Your task to perform on an android device: install app "Walmart Shopping & Grocery" Image 0: 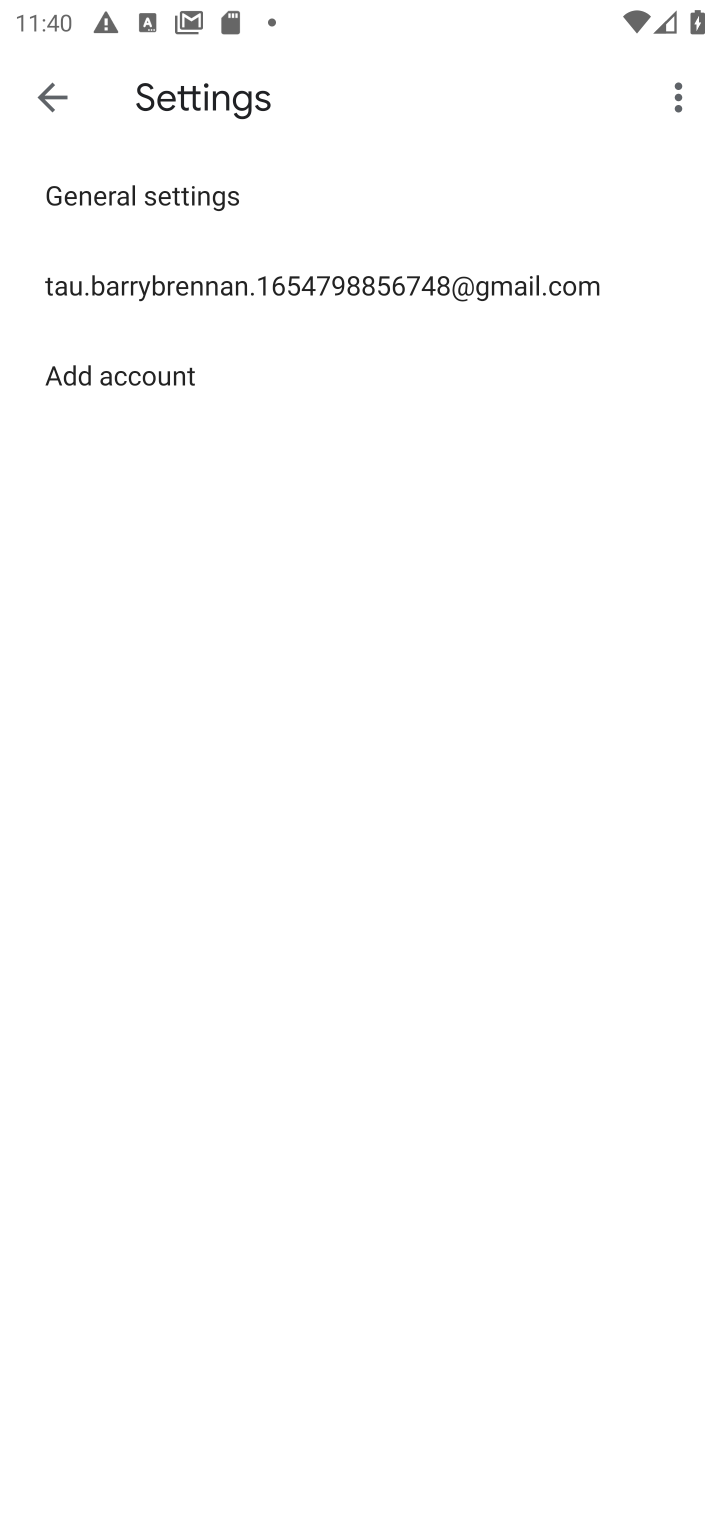
Step 0: press home button
Your task to perform on an android device: install app "Walmart Shopping & Grocery" Image 1: 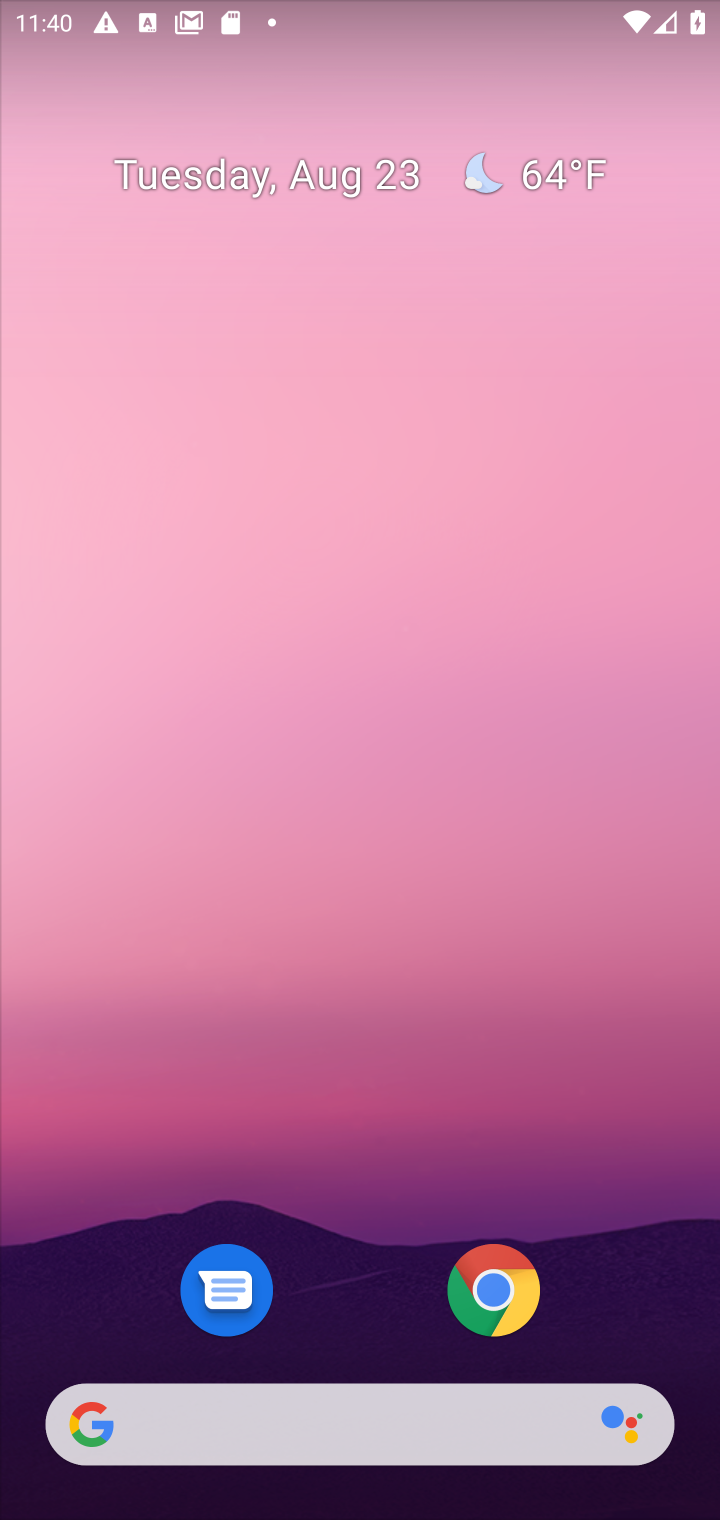
Step 1: drag from (340, 1249) to (290, 65)
Your task to perform on an android device: install app "Walmart Shopping & Grocery" Image 2: 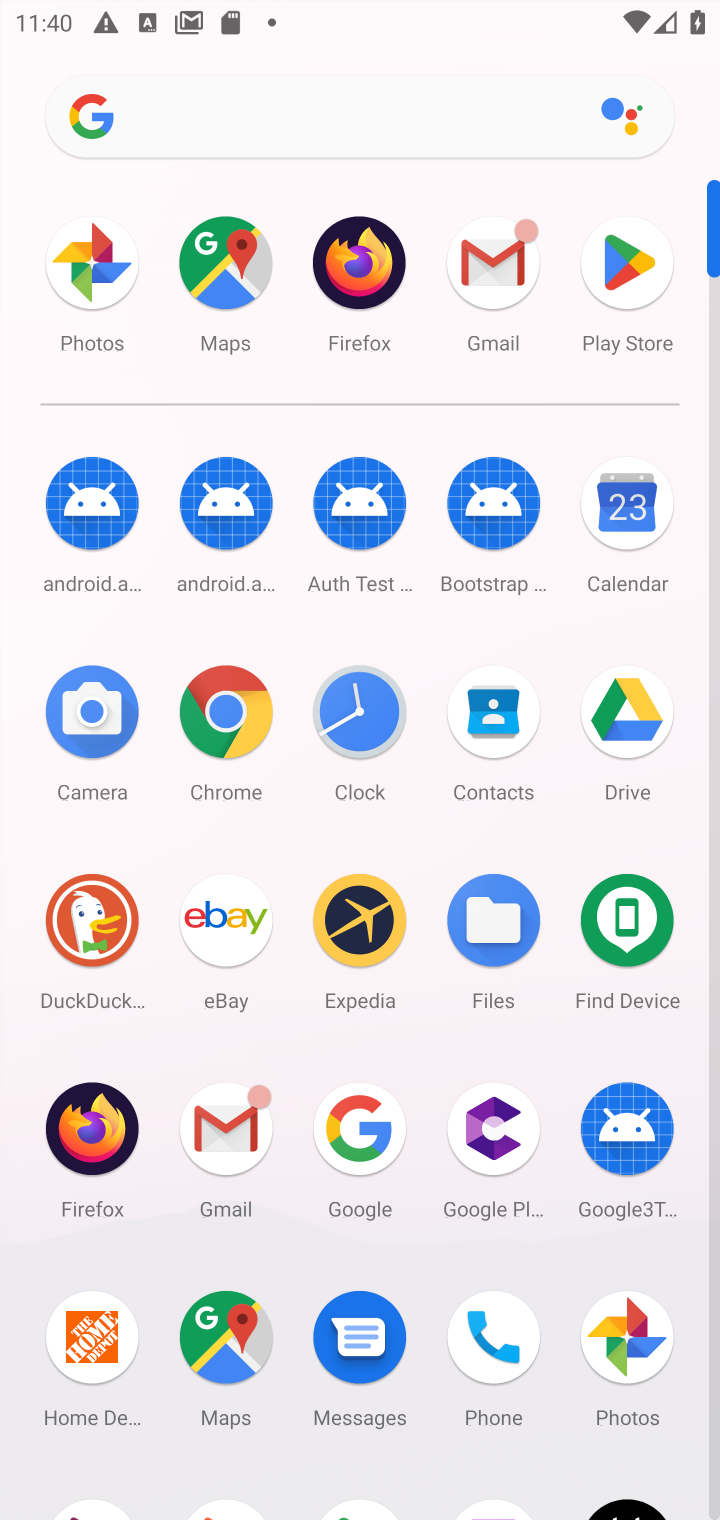
Step 2: click (628, 275)
Your task to perform on an android device: install app "Walmart Shopping & Grocery" Image 3: 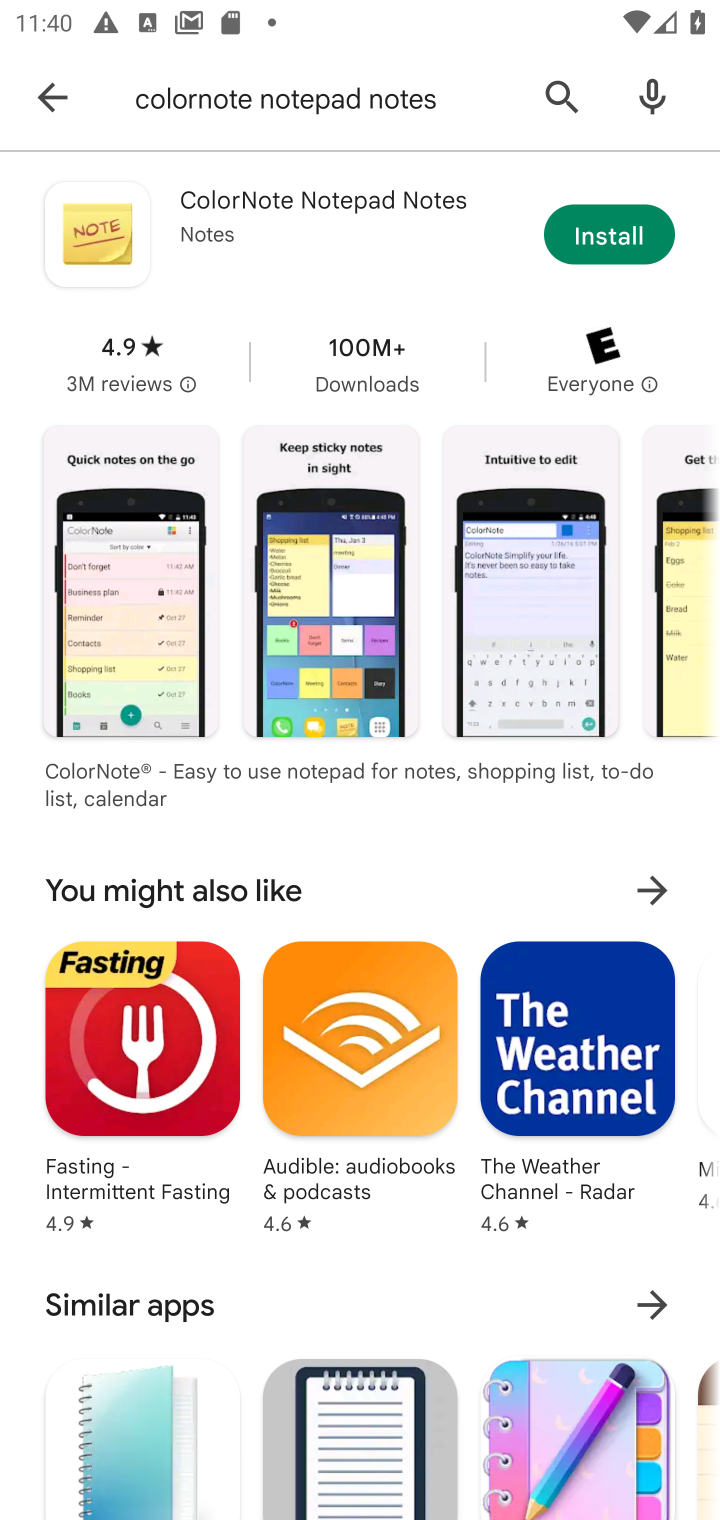
Step 3: click (535, 101)
Your task to perform on an android device: install app "Walmart Shopping & Grocery" Image 4: 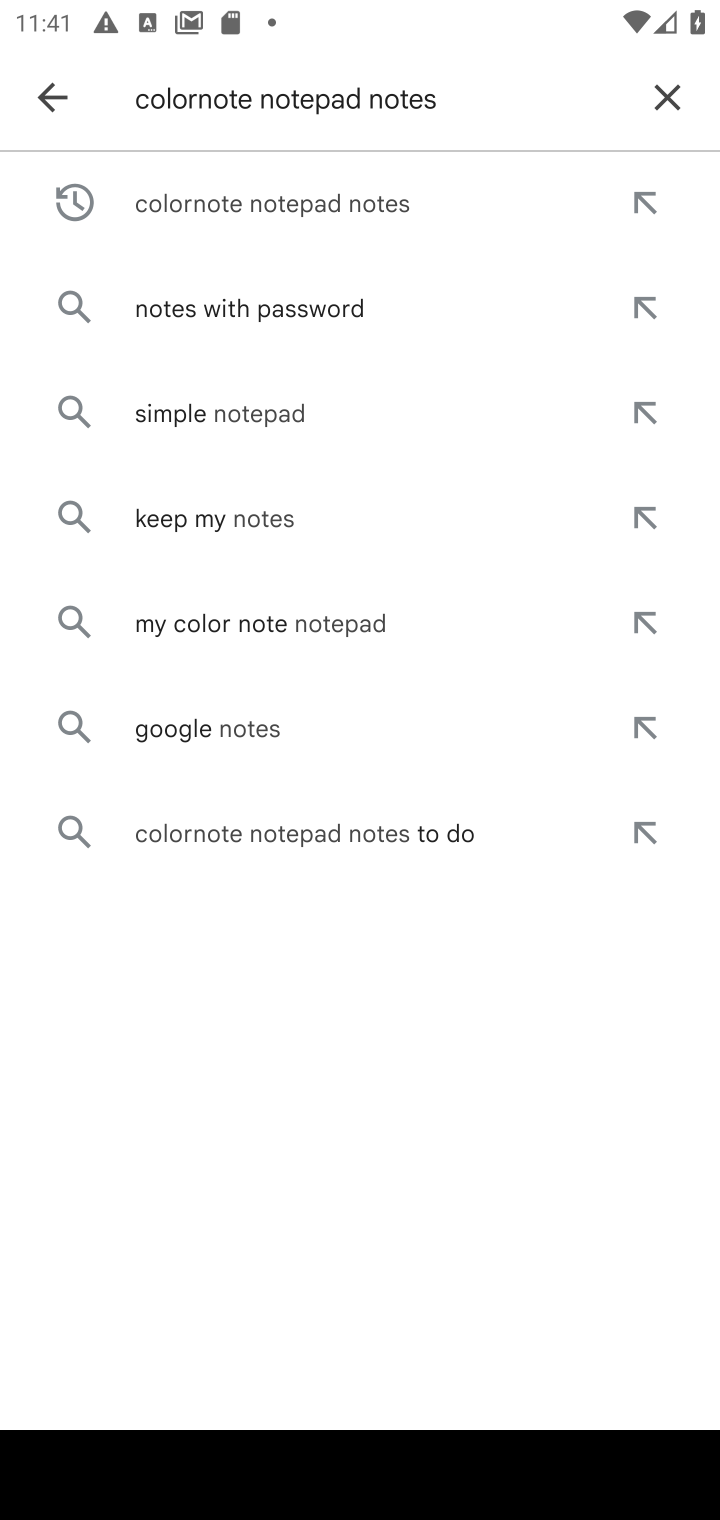
Step 4: click (670, 82)
Your task to perform on an android device: install app "Walmart Shopping & Grocery" Image 5: 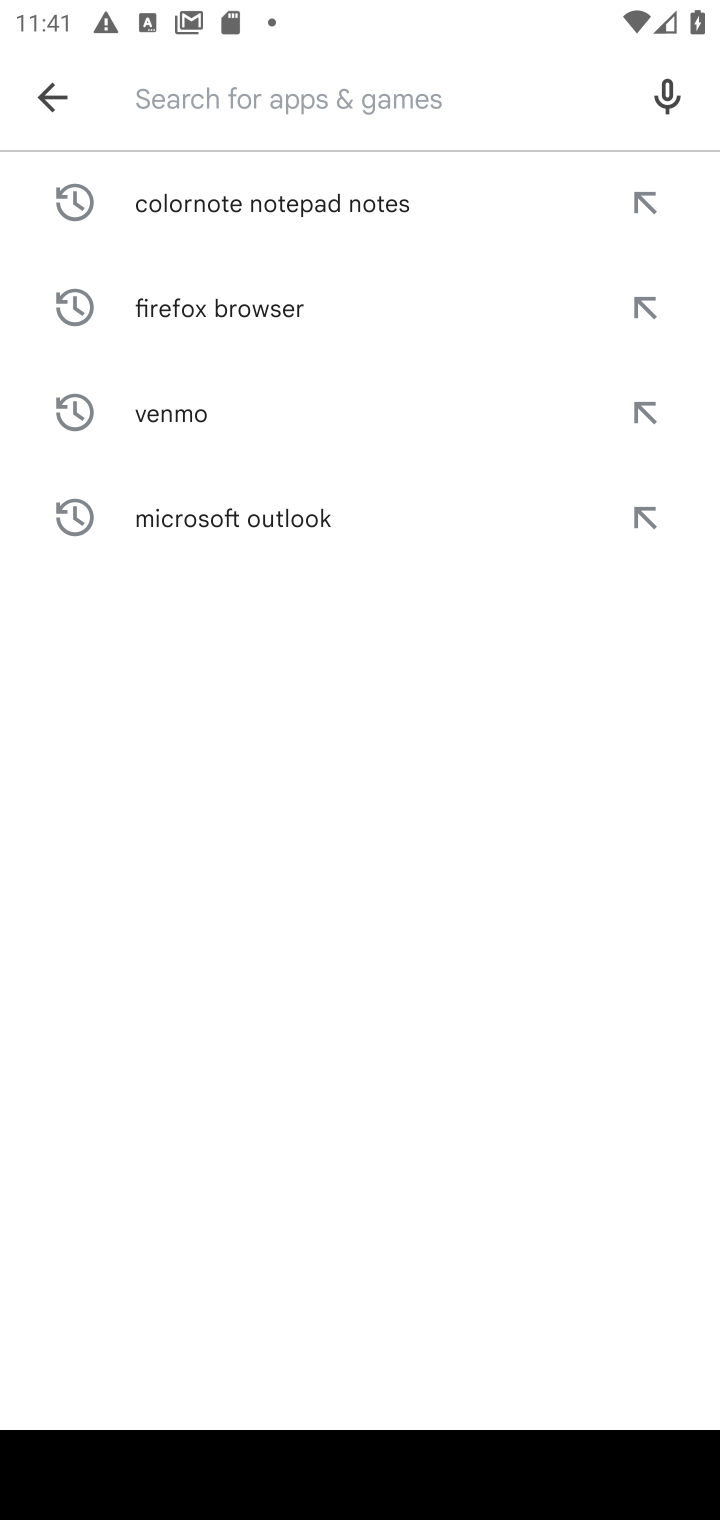
Step 5: type "Walmart Shopping & Grocery"
Your task to perform on an android device: install app "Walmart Shopping & Grocery" Image 6: 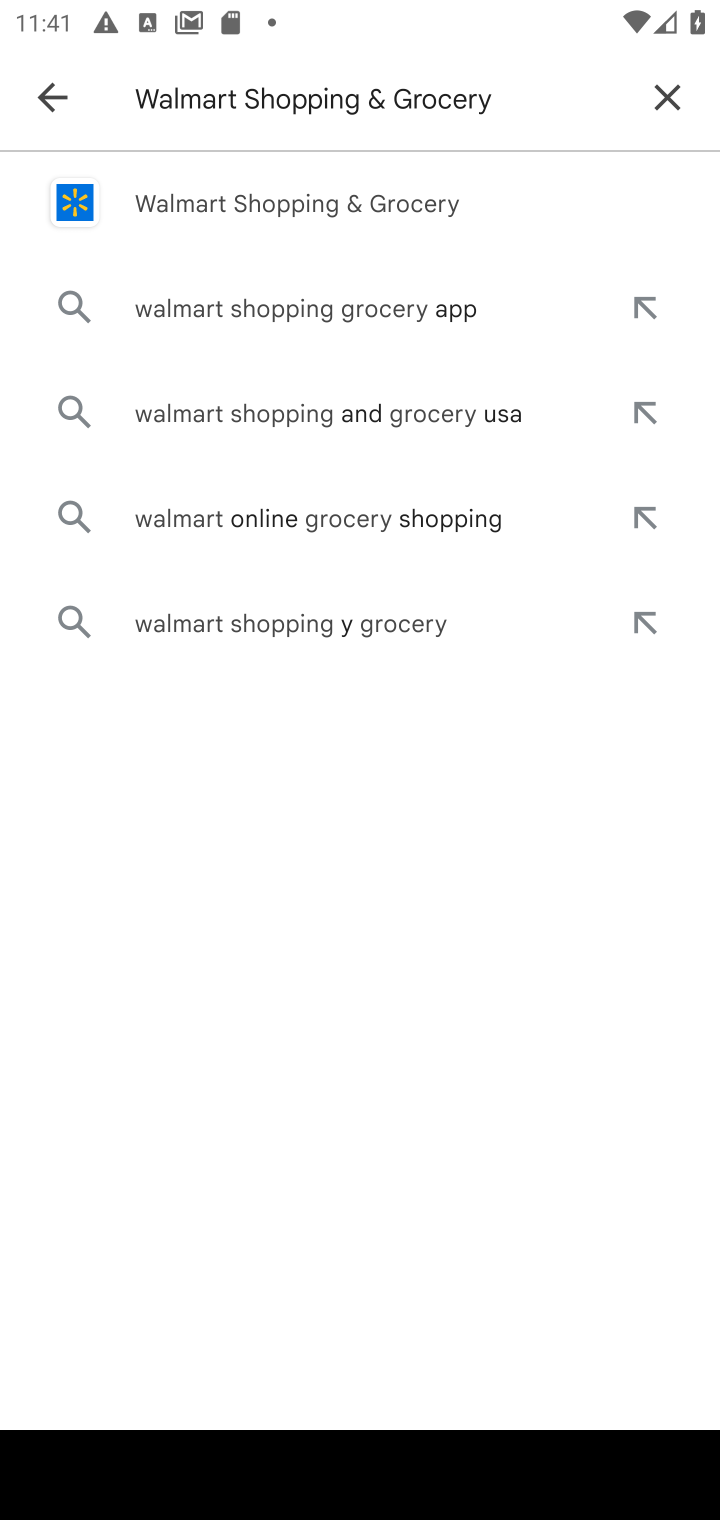
Step 6: click (402, 203)
Your task to perform on an android device: install app "Walmart Shopping & Grocery" Image 7: 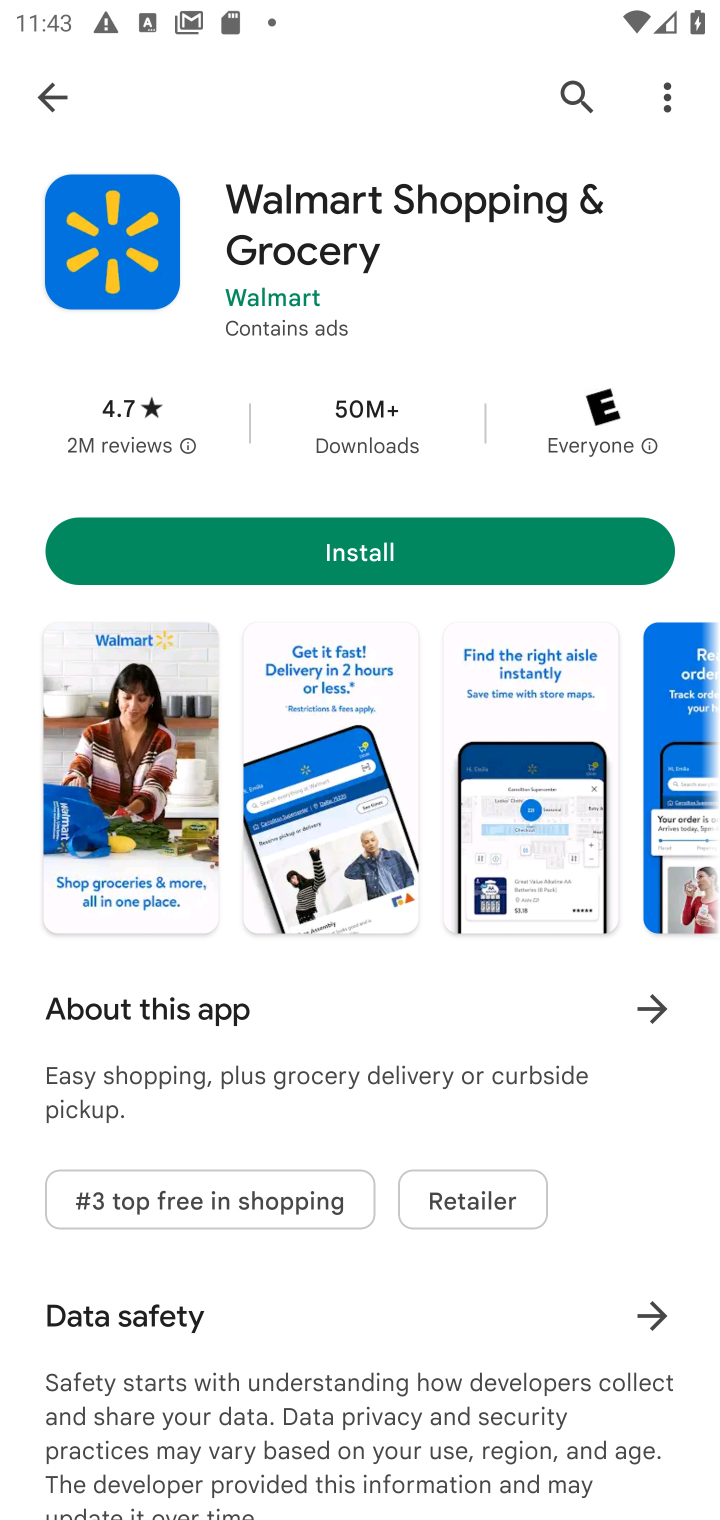
Step 7: click (573, 95)
Your task to perform on an android device: install app "Walmart Shopping & Grocery" Image 8: 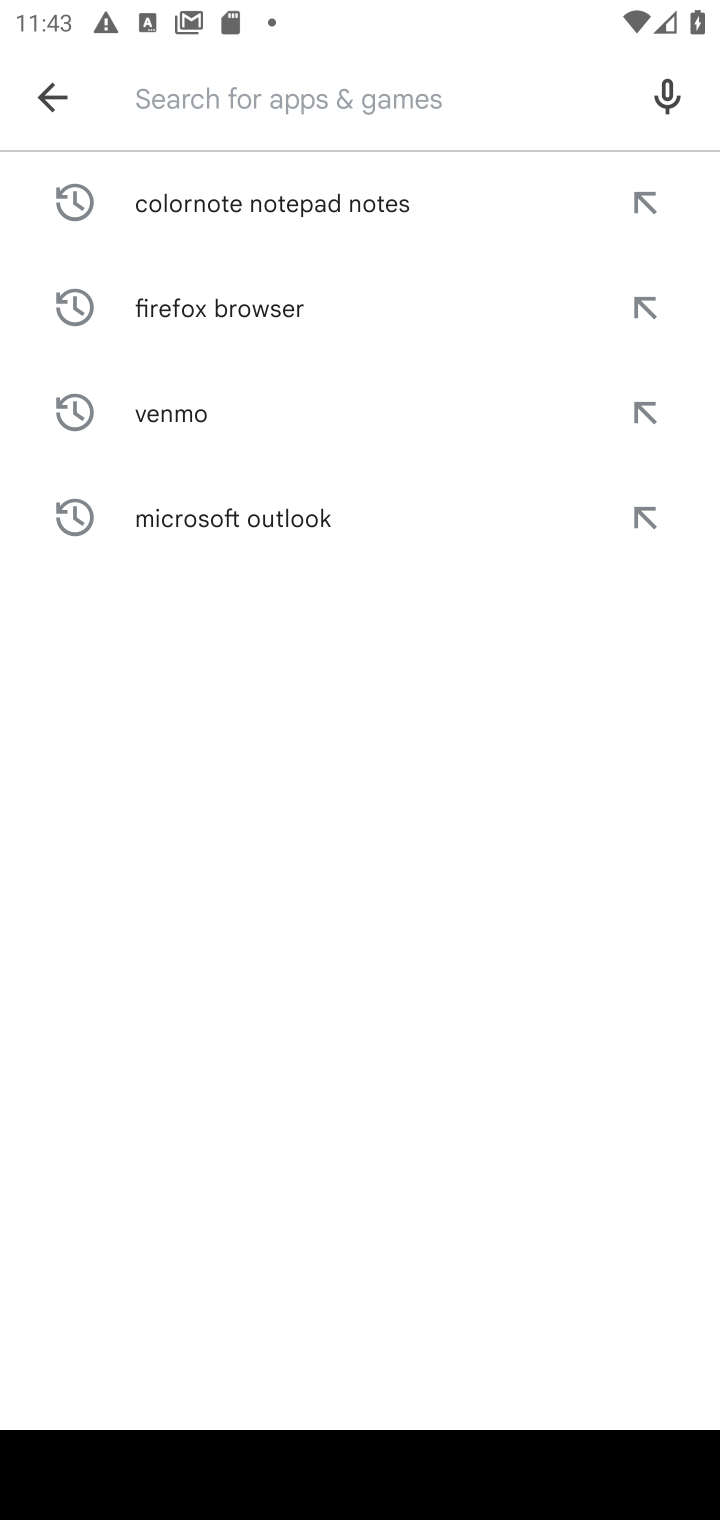
Step 8: type "Walmart Shopping & Grocery"
Your task to perform on an android device: install app "Walmart Shopping & Grocery" Image 9: 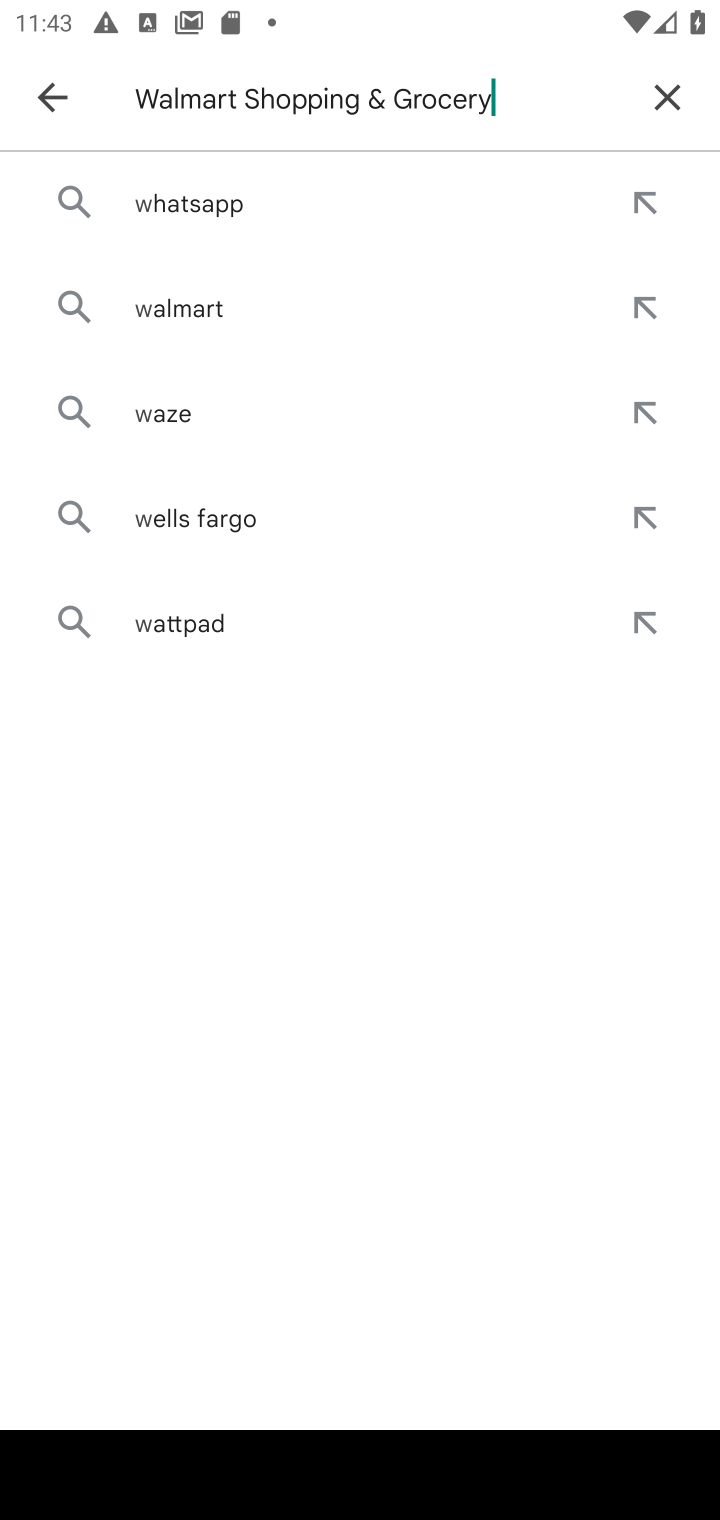
Step 9: type ""
Your task to perform on an android device: install app "Walmart Shopping & Grocery" Image 10: 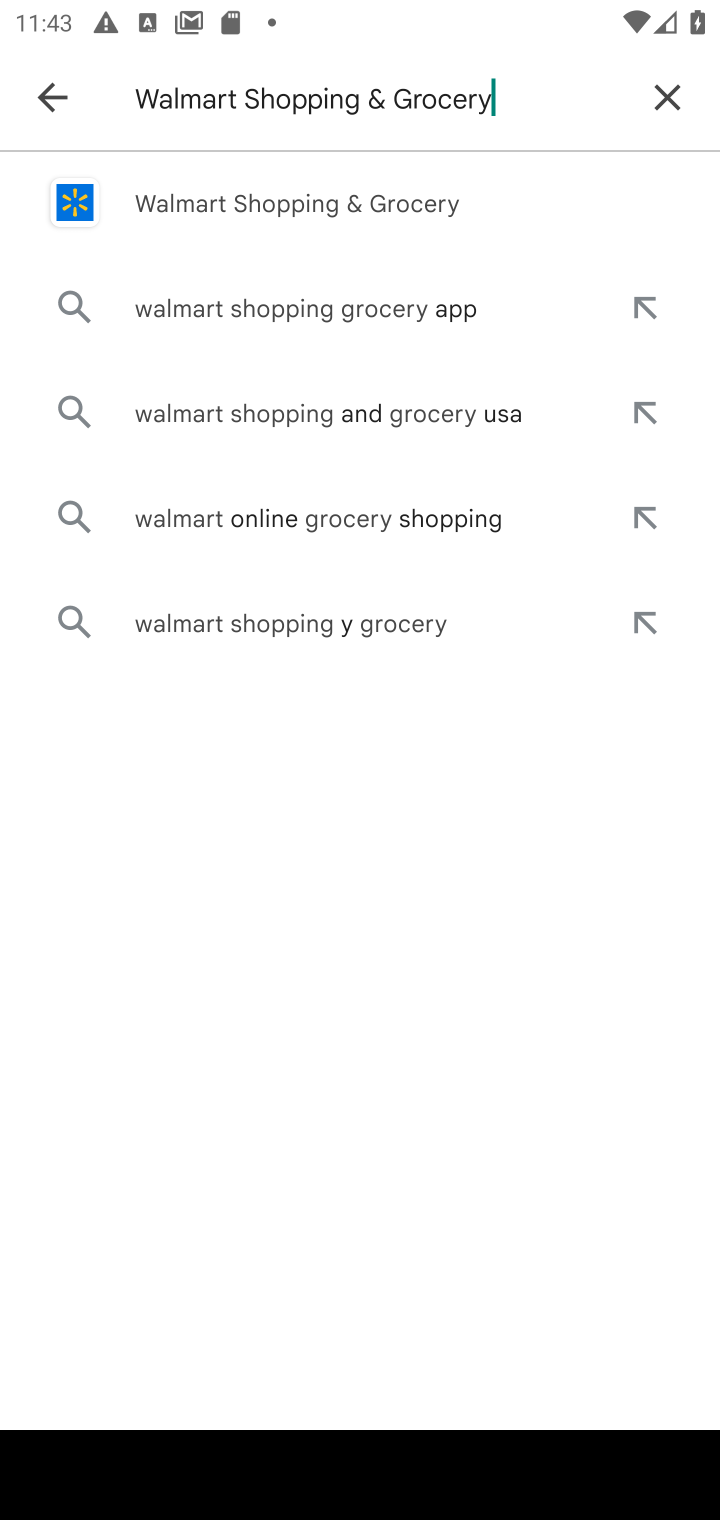
Step 10: click (393, 196)
Your task to perform on an android device: install app "Walmart Shopping & Grocery" Image 11: 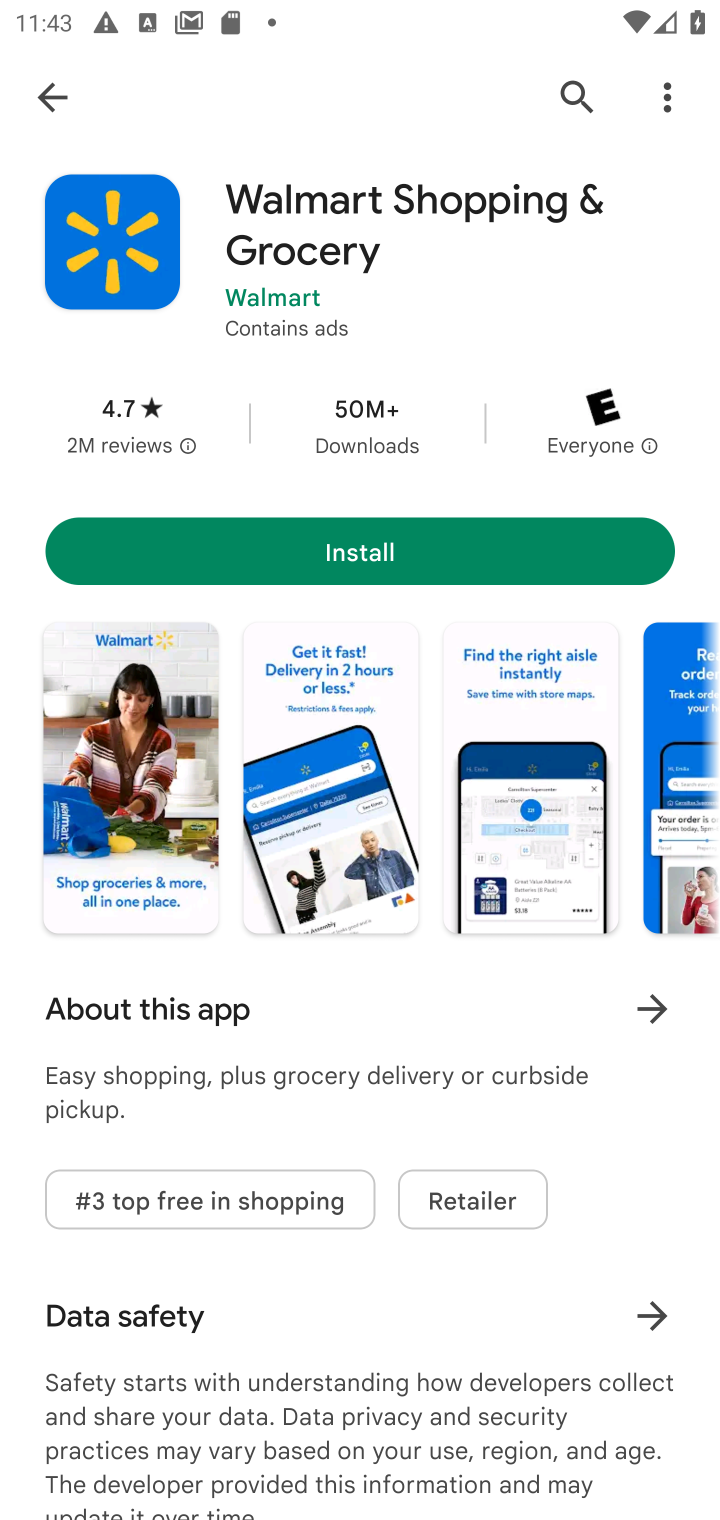
Step 11: click (362, 561)
Your task to perform on an android device: install app "Walmart Shopping & Grocery" Image 12: 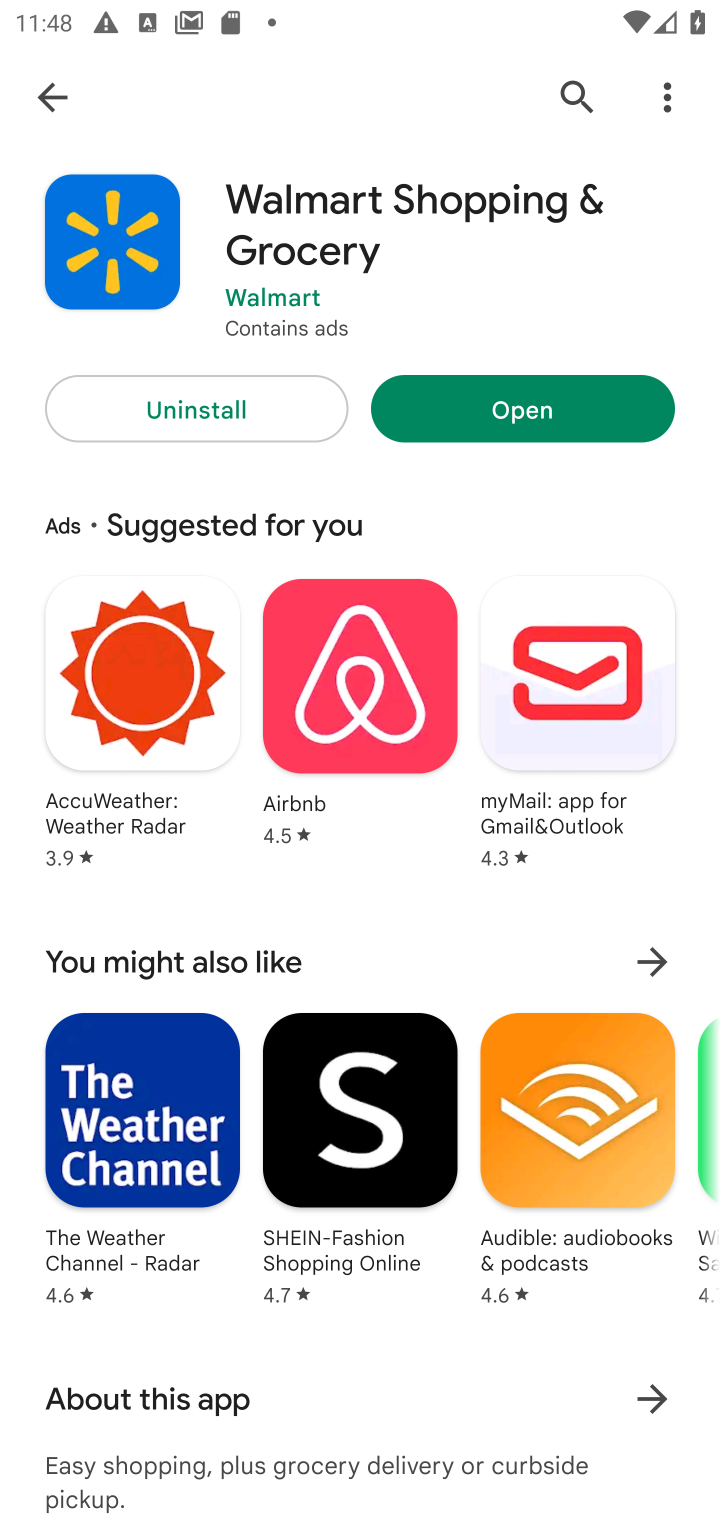
Step 12: task complete